Your task to perform on an android device: What is the recent news? Image 0: 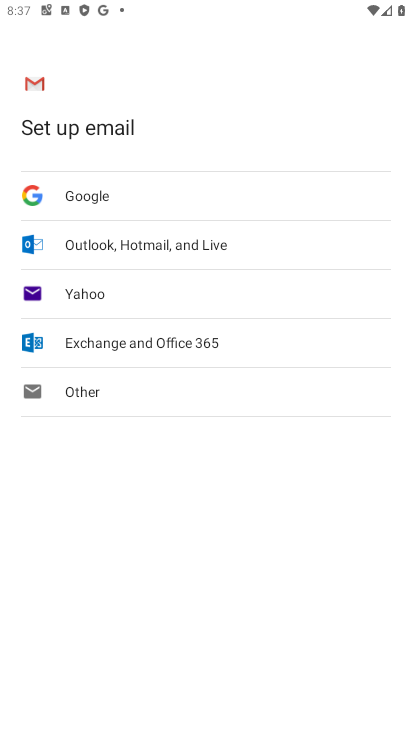
Step 0: press home button
Your task to perform on an android device: What is the recent news? Image 1: 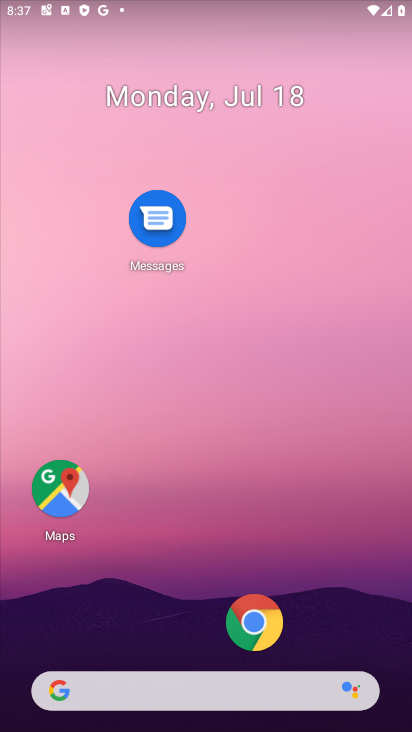
Step 1: drag from (213, 668) to (221, 131)
Your task to perform on an android device: What is the recent news? Image 2: 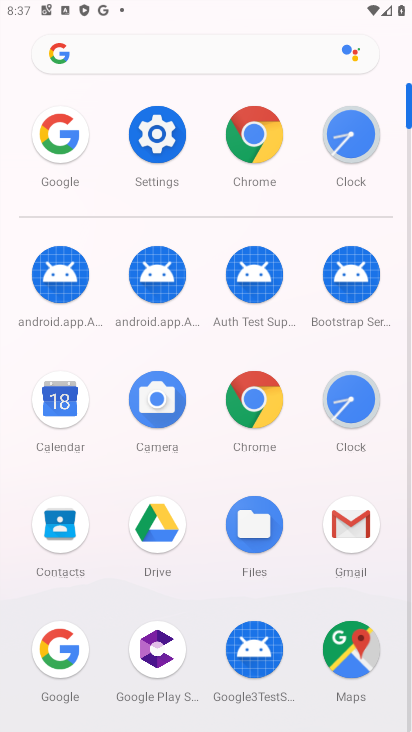
Step 2: click (73, 652)
Your task to perform on an android device: What is the recent news? Image 3: 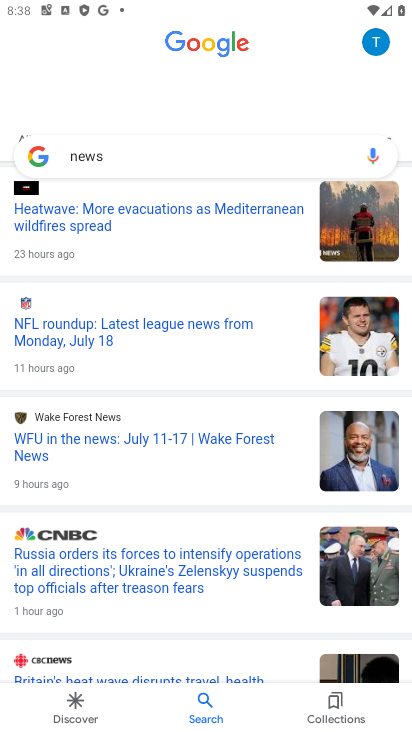
Step 3: task complete